Your task to perform on an android device: see tabs open on other devices in the chrome app Image 0: 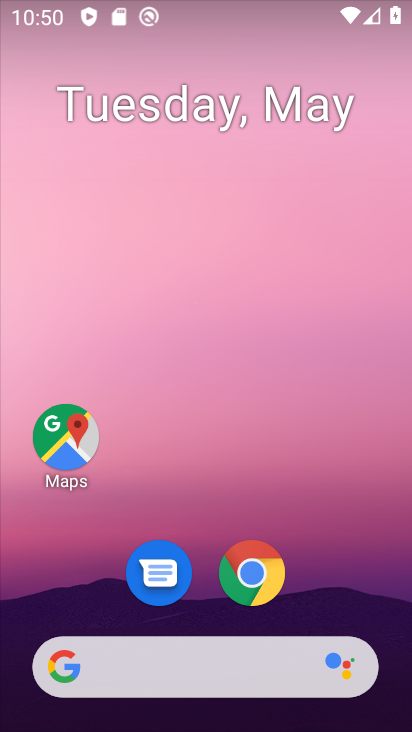
Step 0: click (261, 575)
Your task to perform on an android device: see tabs open on other devices in the chrome app Image 1: 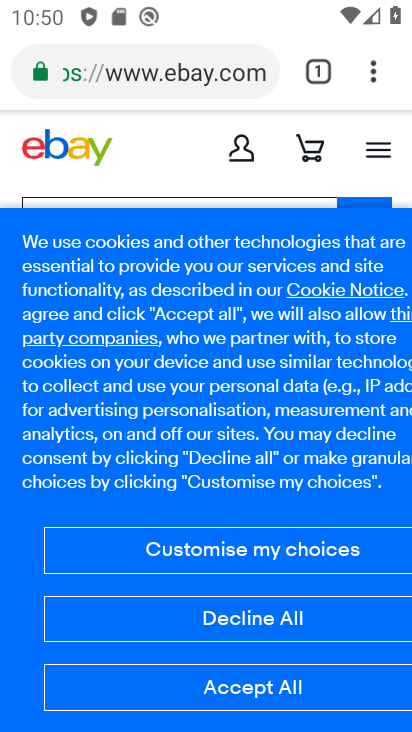
Step 1: click (321, 73)
Your task to perform on an android device: see tabs open on other devices in the chrome app Image 2: 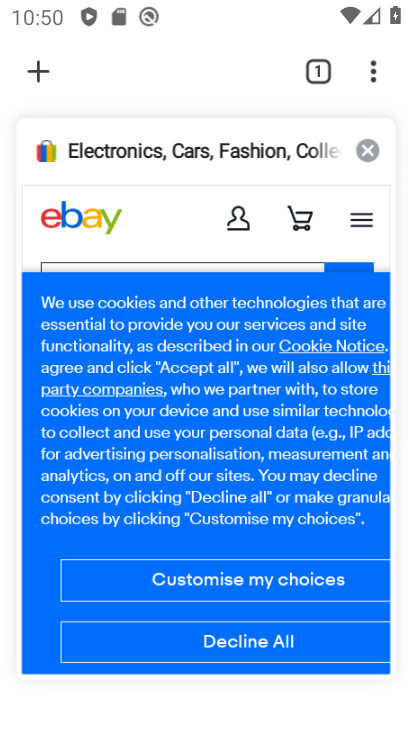
Step 2: task complete